Your task to perform on an android device: set default search engine in the chrome app Image 0: 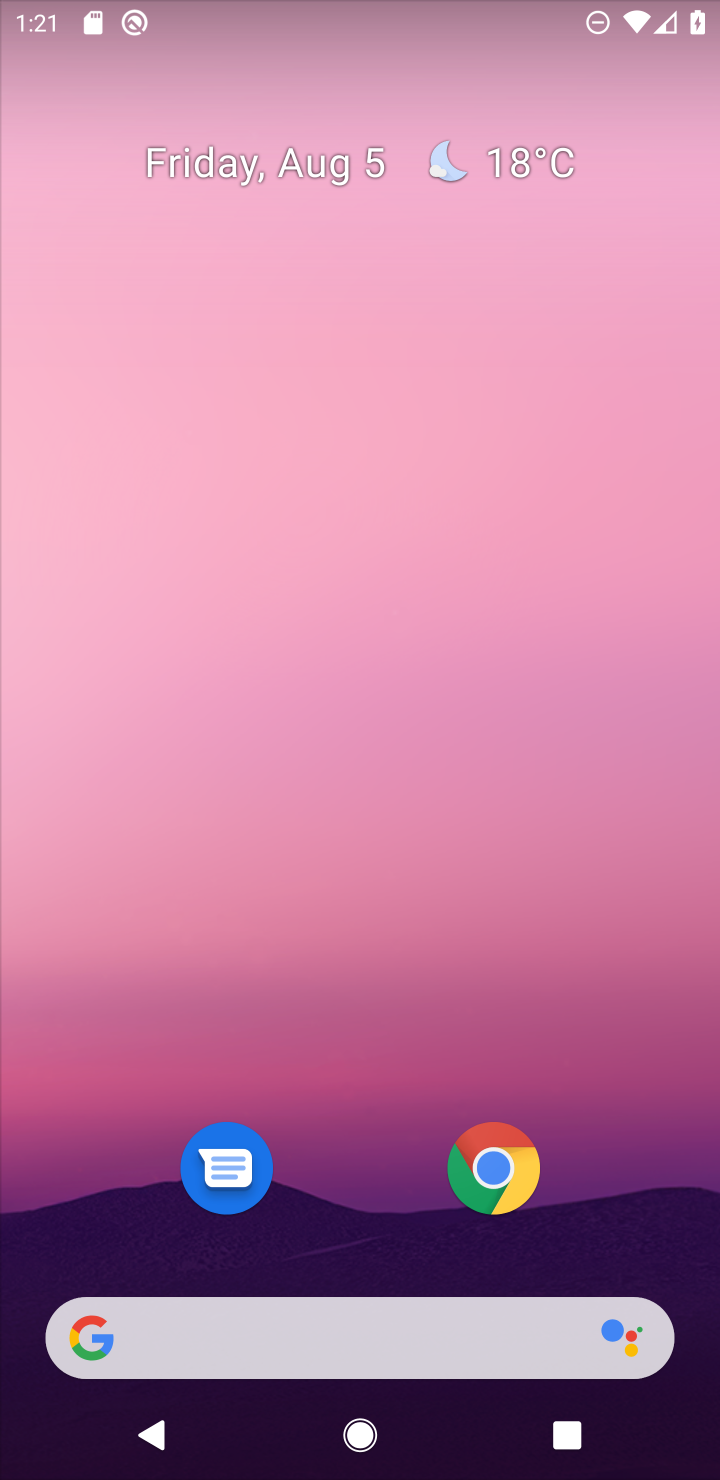
Step 0: click (490, 1167)
Your task to perform on an android device: set default search engine in the chrome app Image 1: 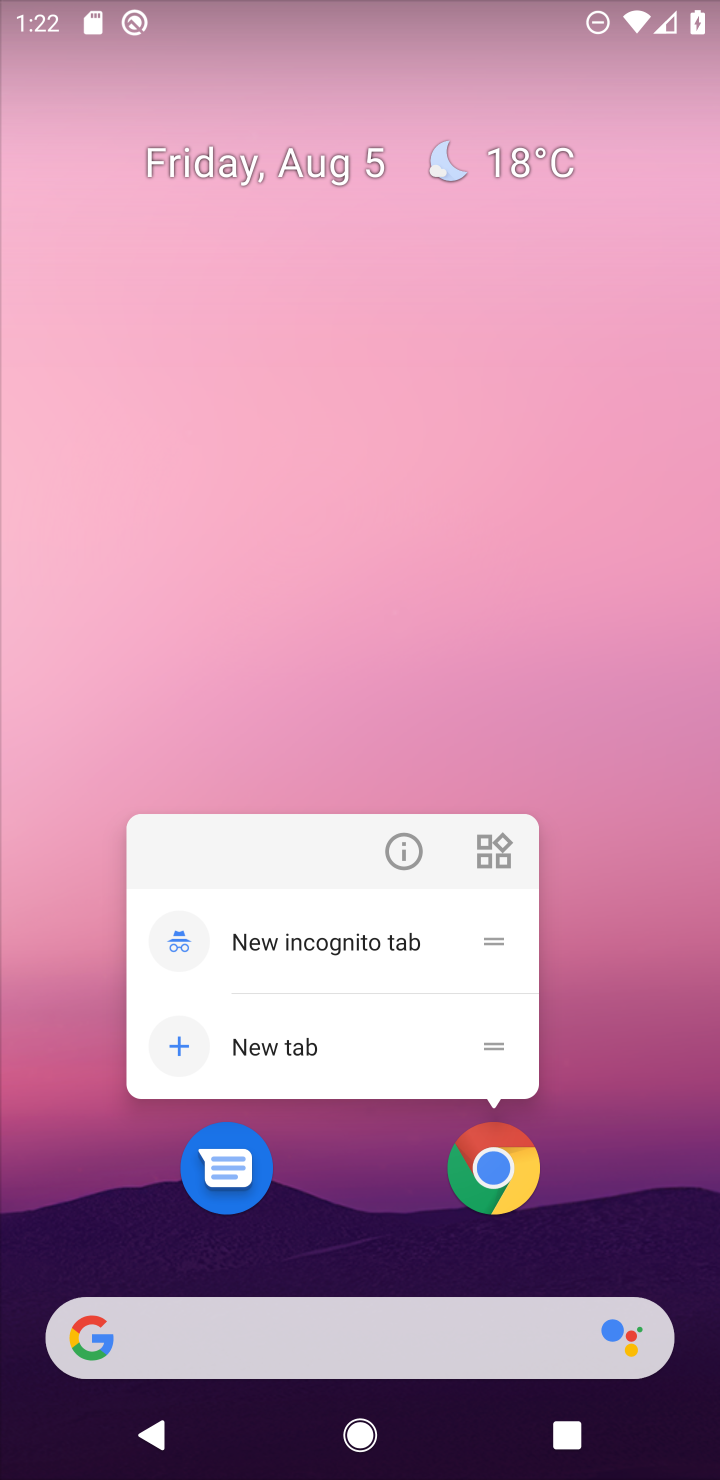
Step 1: click (482, 1150)
Your task to perform on an android device: set default search engine in the chrome app Image 2: 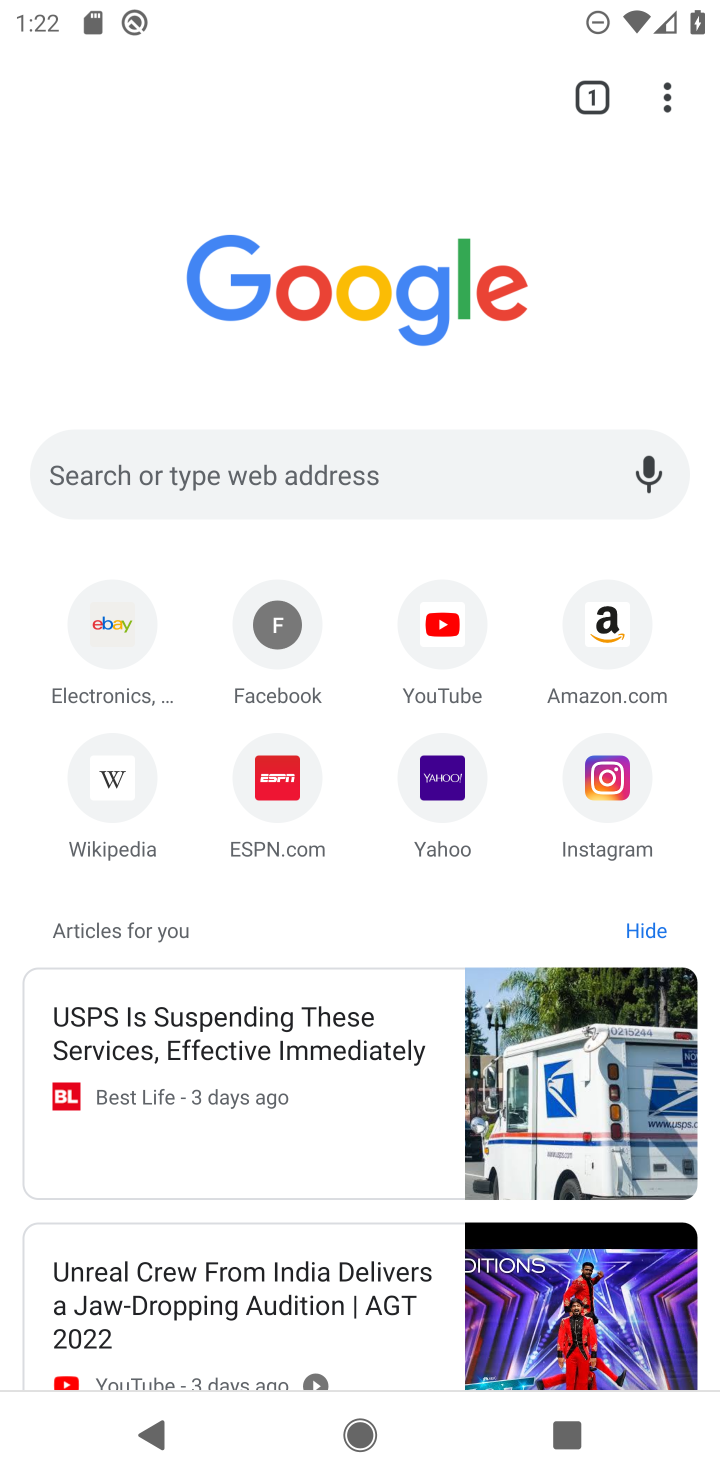
Step 2: drag from (667, 102) to (339, 919)
Your task to perform on an android device: set default search engine in the chrome app Image 3: 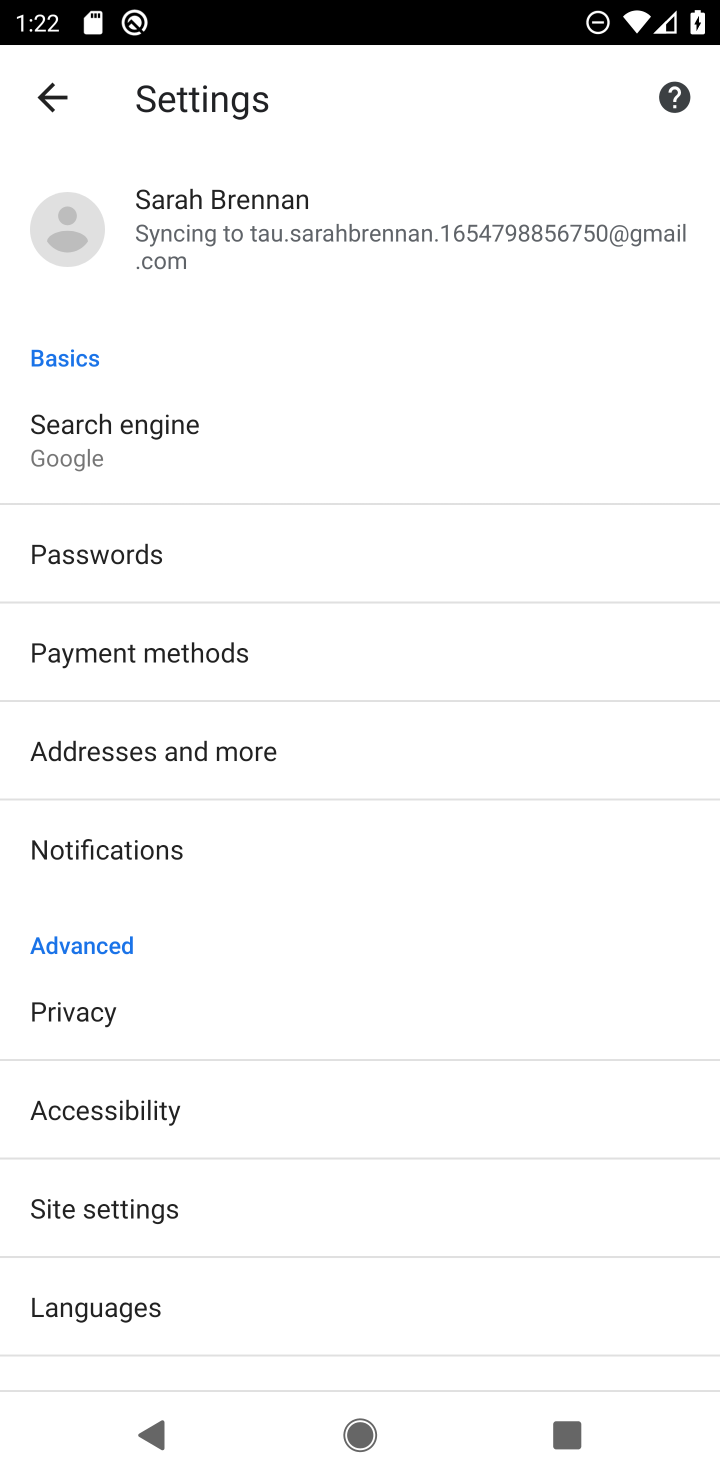
Step 3: click (110, 454)
Your task to perform on an android device: set default search engine in the chrome app Image 4: 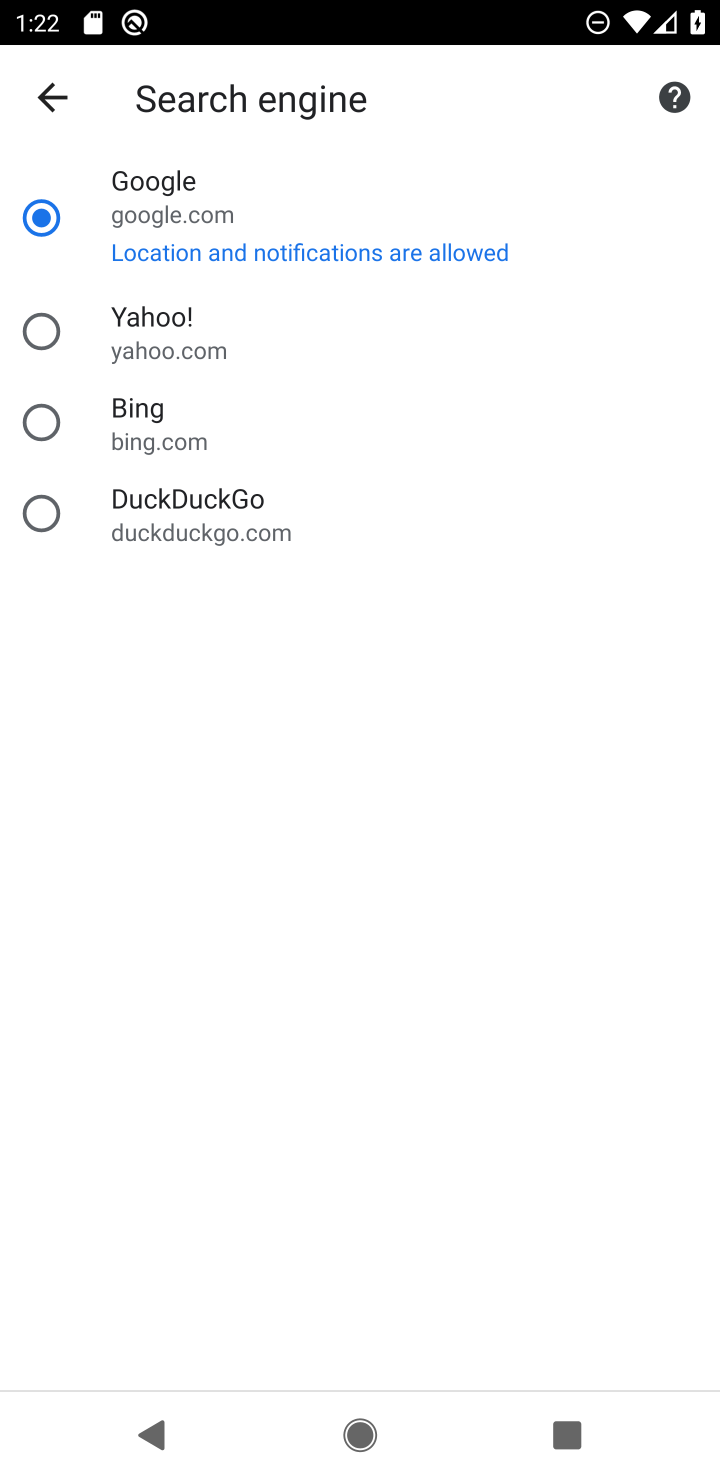
Step 4: click (207, 326)
Your task to perform on an android device: set default search engine in the chrome app Image 5: 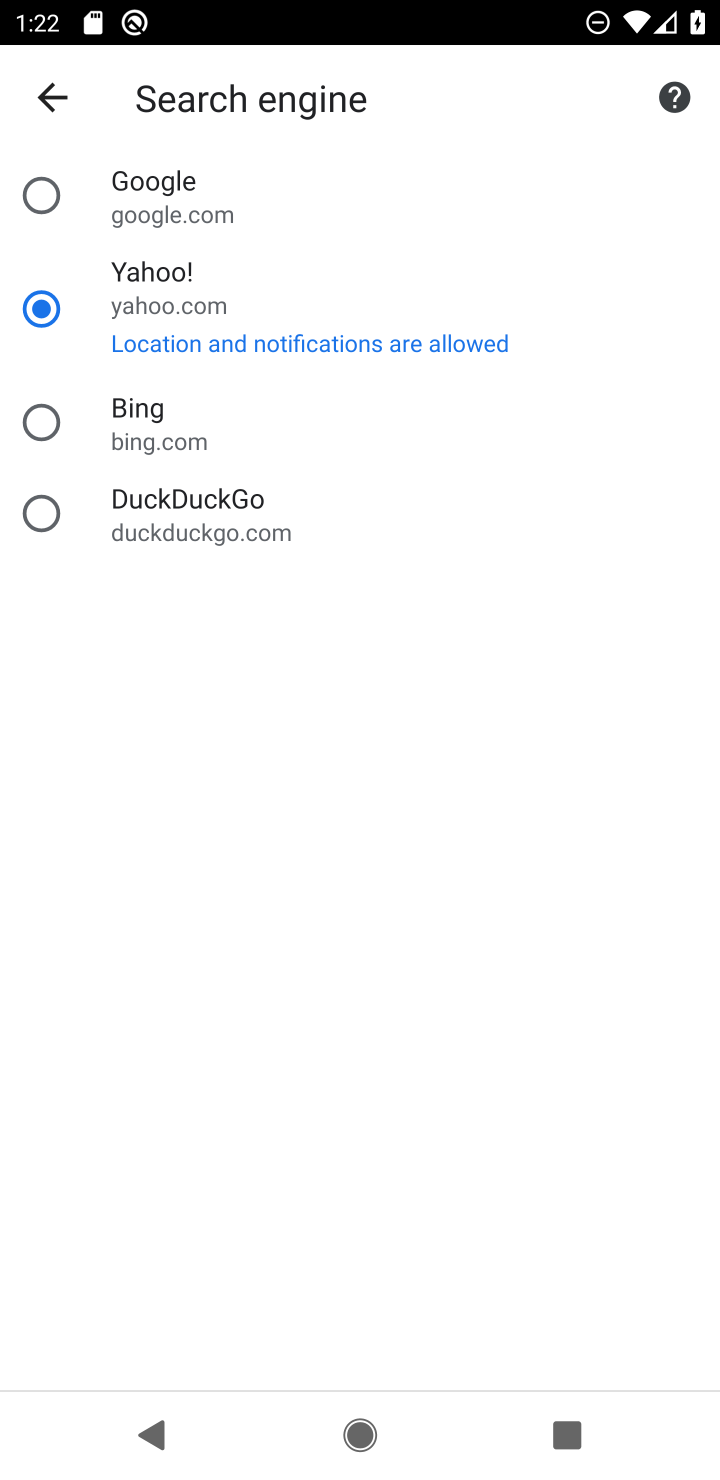
Step 5: task complete